Your task to perform on an android device: manage bookmarks in the chrome app Image 0: 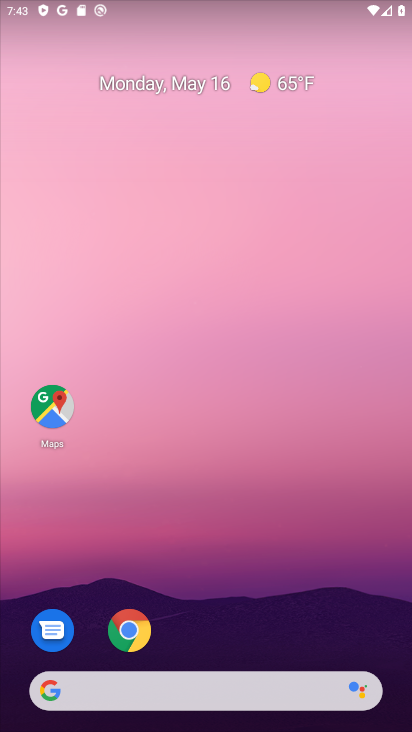
Step 0: click (121, 612)
Your task to perform on an android device: manage bookmarks in the chrome app Image 1: 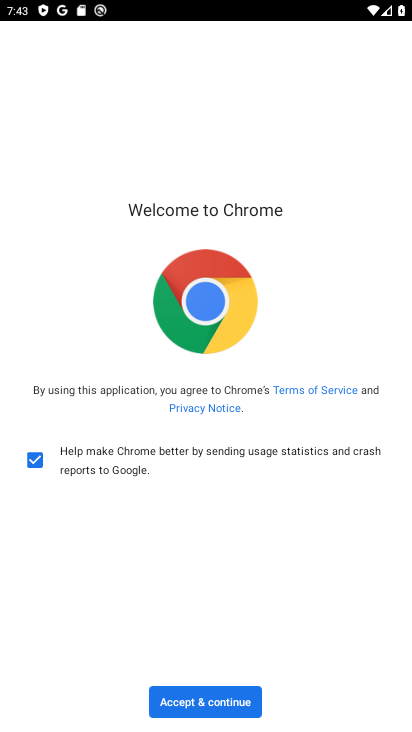
Step 1: click (195, 689)
Your task to perform on an android device: manage bookmarks in the chrome app Image 2: 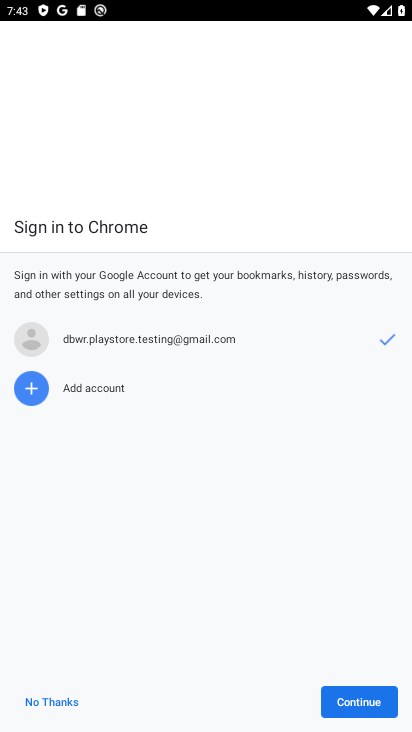
Step 2: click (351, 701)
Your task to perform on an android device: manage bookmarks in the chrome app Image 3: 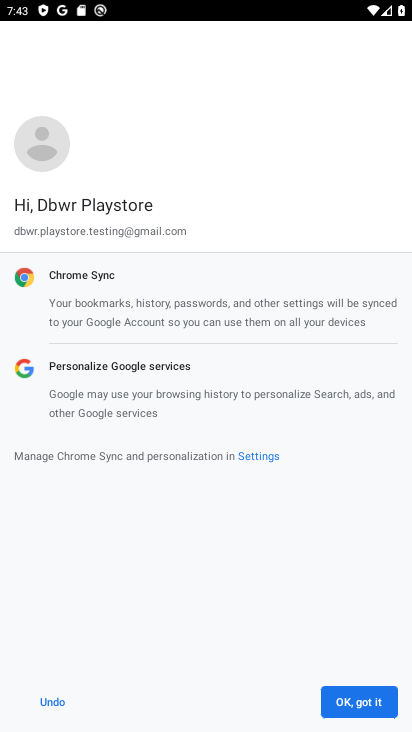
Step 3: click (350, 698)
Your task to perform on an android device: manage bookmarks in the chrome app Image 4: 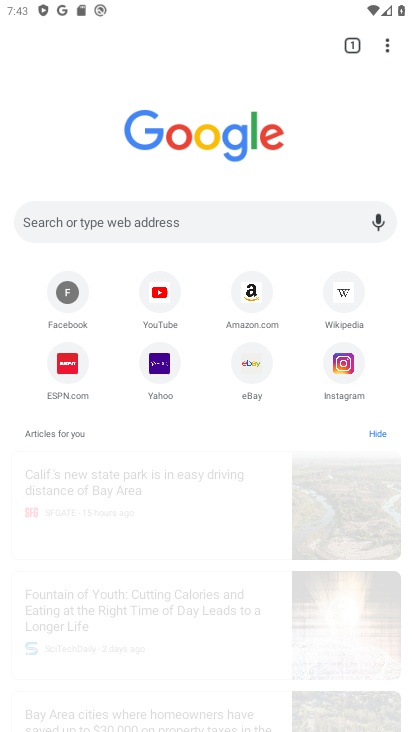
Step 4: task complete